Your task to perform on an android device: turn off notifications in google photos Image 0: 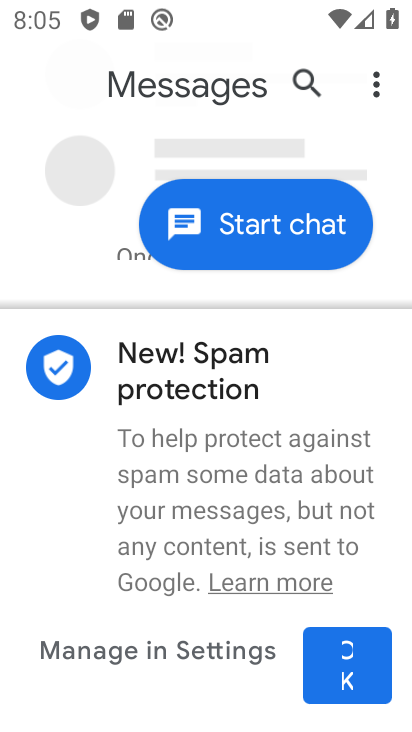
Step 0: press home button
Your task to perform on an android device: turn off notifications in google photos Image 1: 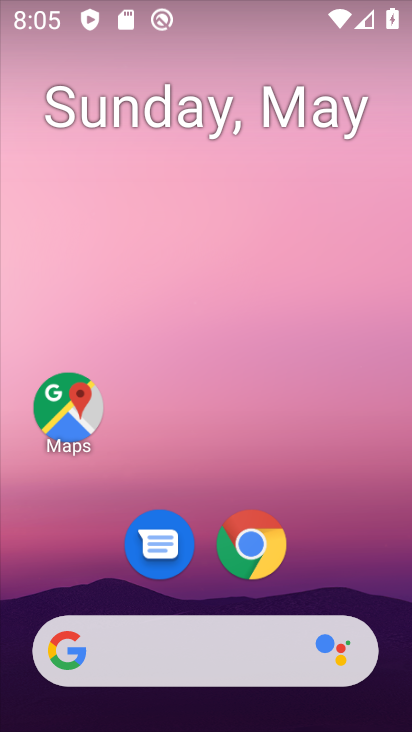
Step 1: drag from (349, 534) to (230, 0)
Your task to perform on an android device: turn off notifications in google photos Image 2: 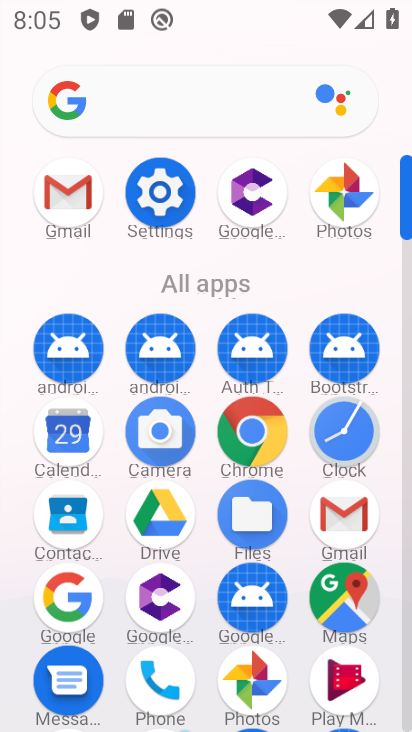
Step 2: click (331, 189)
Your task to perform on an android device: turn off notifications in google photos Image 3: 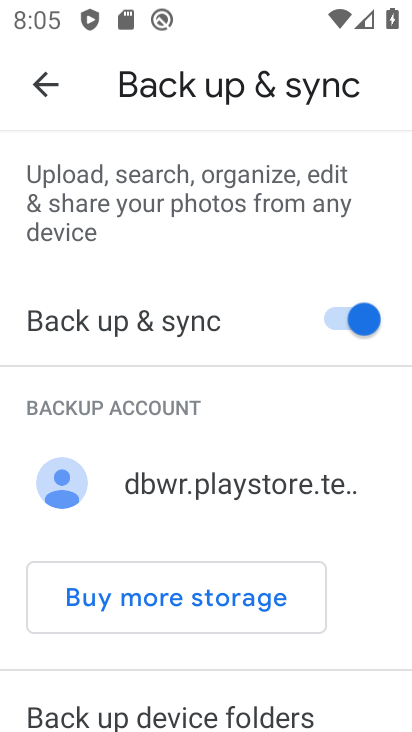
Step 3: click (27, 76)
Your task to perform on an android device: turn off notifications in google photos Image 4: 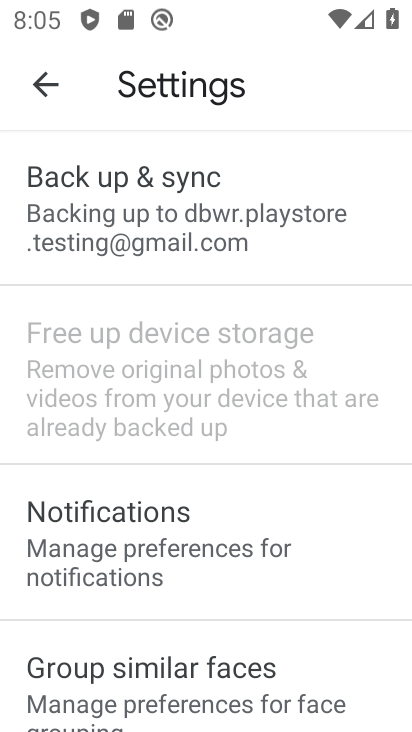
Step 4: click (100, 535)
Your task to perform on an android device: turn off notifications in google photos Image 5: 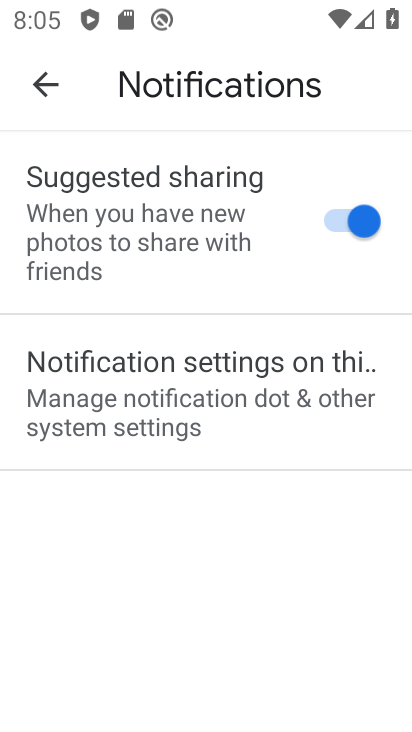
Step 5: click (136, 426)
Your task to perform on an android device: turn off notifications in google photos Image 6: 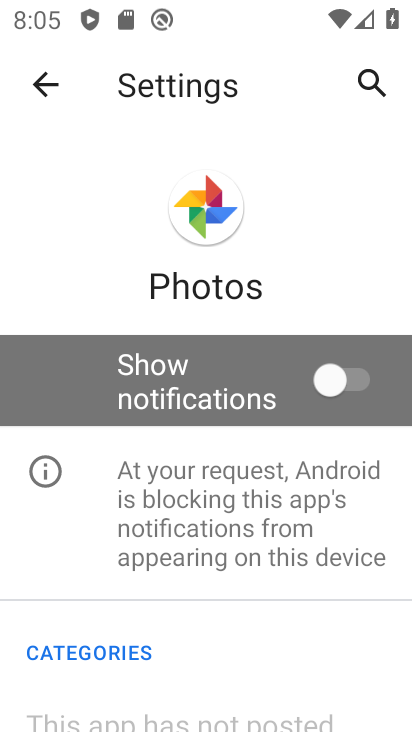
Step 6: task complete